Your task to perform on an android device: change the clock display to show seconds Image 0: 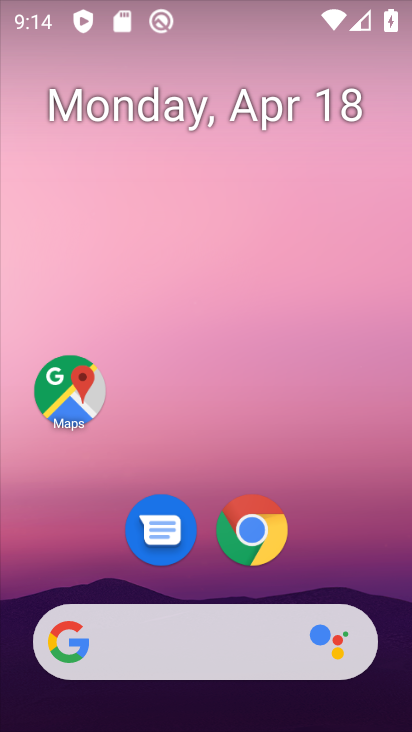
Step 0: drag from (374, 582) to (367, 82)
Your task to perform on an android device: change the clock display to show seconds Image 1: 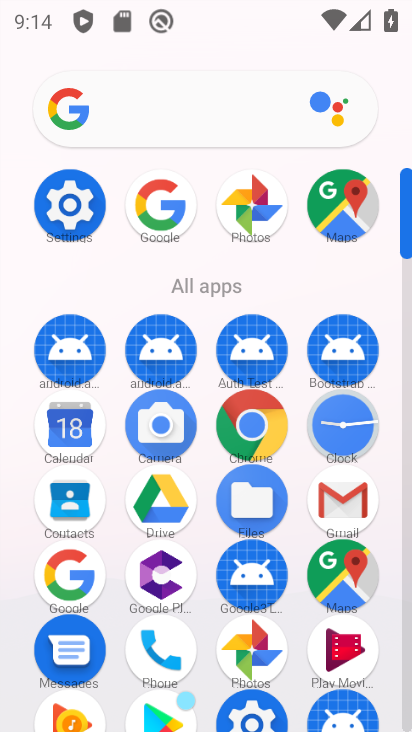
Step 1: click (337, 430)
Your task to perform on an android device: change the clock display to show seconds Image 2: 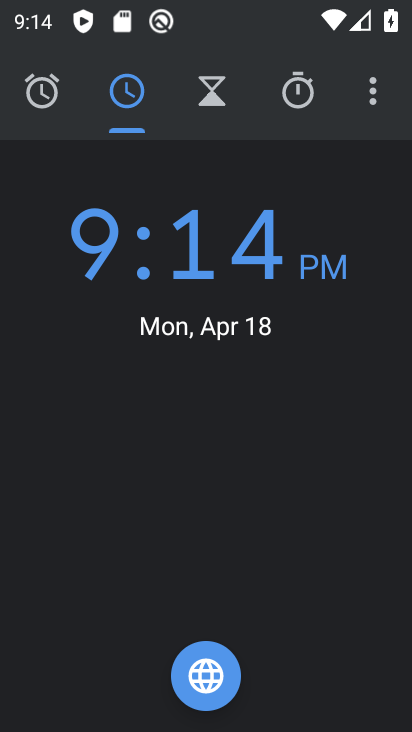
Step 2: click (380, 89)
Your task to perform on an android device: change the clock display to show seconds Image 3: 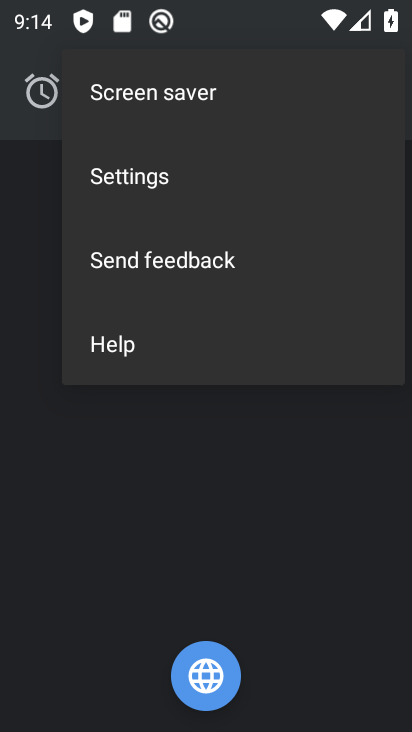
Step 3: click (126, 189)
Your task to perform on an android device: change the clock display to show seconds Image 4: 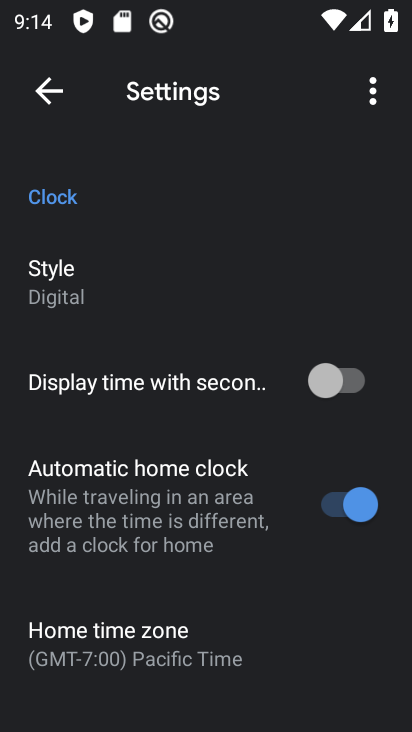
Step 4: click (322, 394)
Your task to perform on an android device: change the clock display to show seconds Image 5: 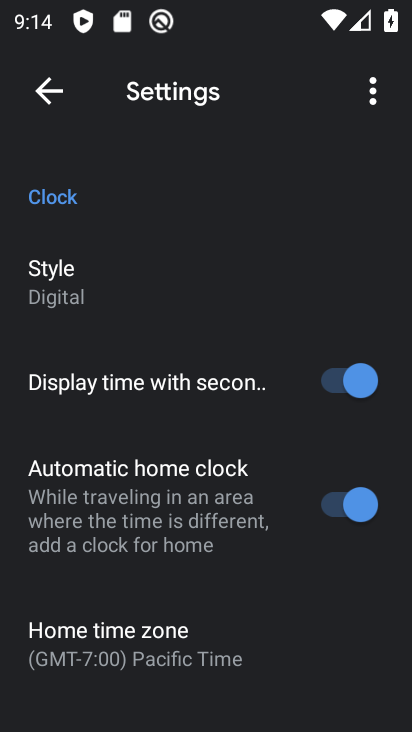
Step 5: task complete